Your task to perform on an android device: change the upload size in google photos Image 0: 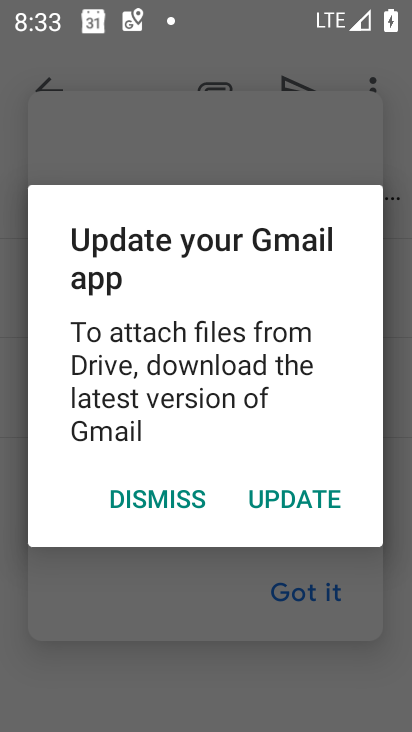
Step 0: click (322, 488)
Your task to perform on an android device: change the upload size in google photos Image 1: 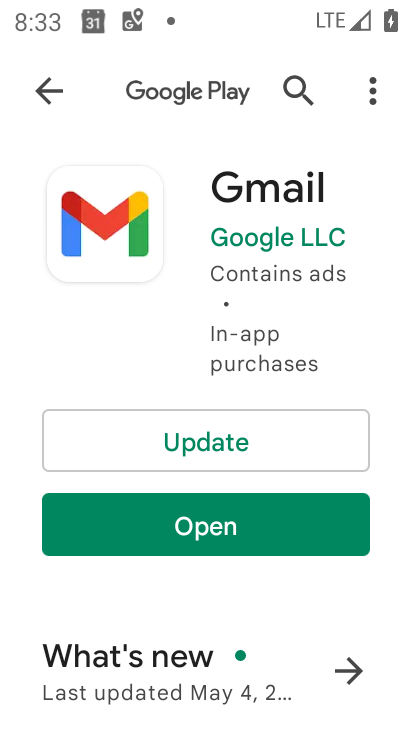
Step 1: click (292, 451)
Your task to perform on an android device: change the upload size in google photos Image 2: 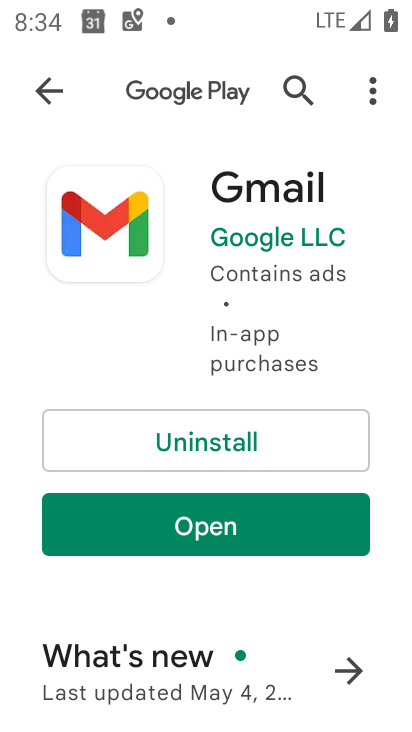
Step 2: click (229, 525)
Your task to perform on an android device: change the upload size in google photos Image 3: 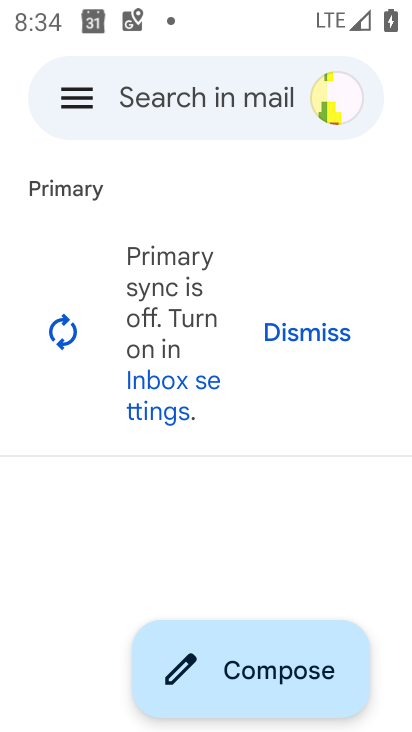
Step 3: click (74, 99)
Your task to perform on an android device: change the upload size in google photos Image 4: 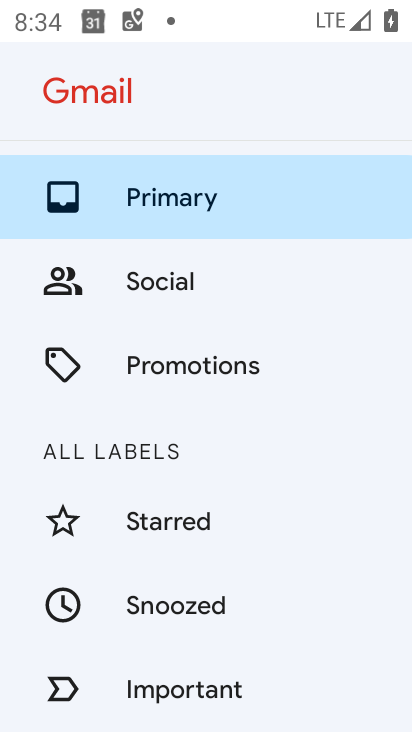
Step 4: press home button
Your task to perform on an android device: change the upload size in google photos Image 5: 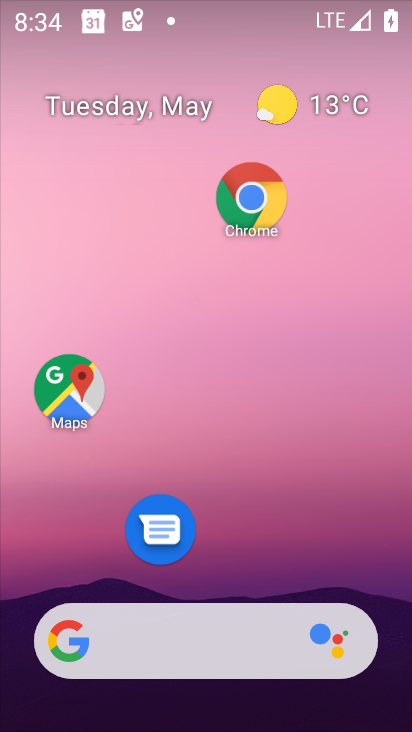
Step 5: drag from (304, 582) to (286, 28)
Your task to perform on an android device: change the upload size in google photos Image 6: 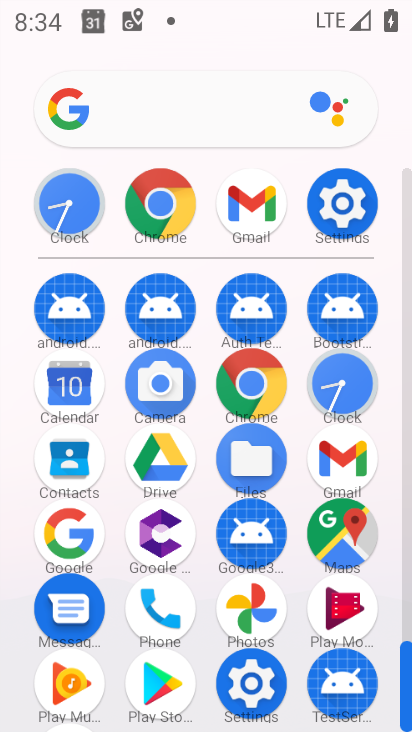
Step 6: click (363, 208)
Your task to perform on an android device: change the upload size in google photos Image 7: 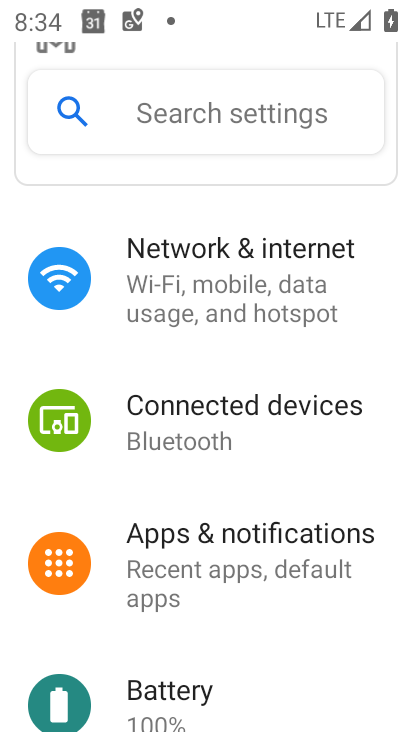
Step 7: press home button
Your task to perform on an android device: change the upload size in google photos Image 8: 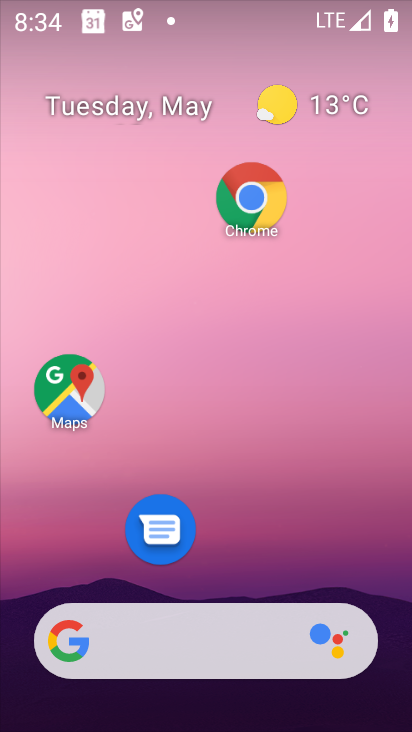
Step 8: drag from (300, 576) to (220, 13)
Your task to perform on an android device: change the upload size in google photos Image 9: 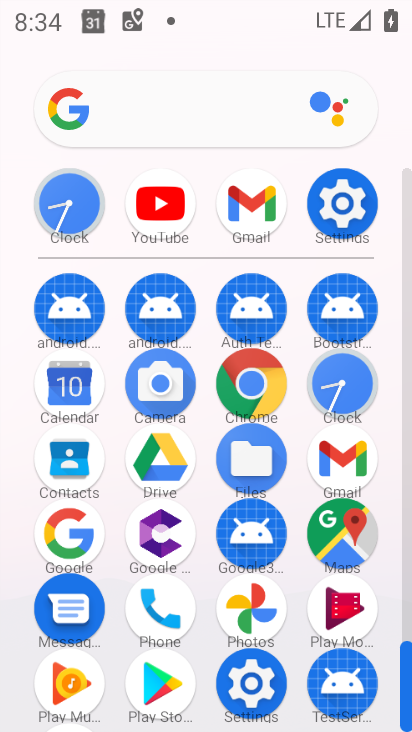
Step 9: click (229, 601)
Your task to perform on an android device: change the upload size in google photos Image 10: 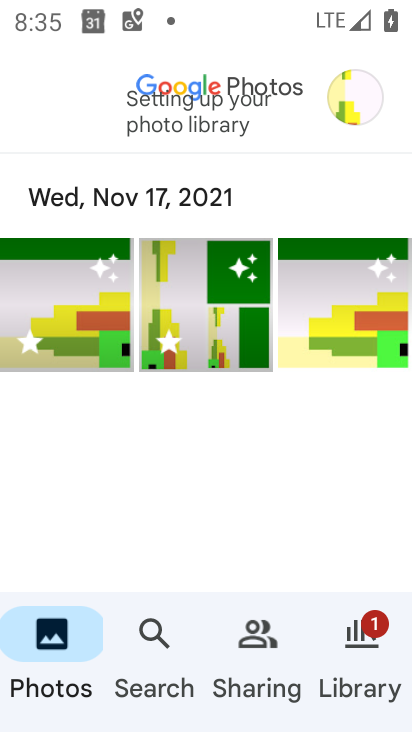
Step 10: click (354, 102)
Your task to perform on an android device: change the upload size in google photos Image 11: 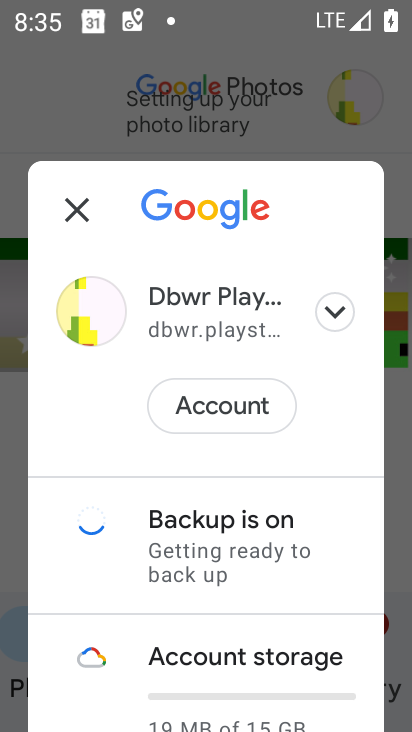
Step 11: drag from (235, 641) to (257, 316)
Your task to perform on an android device: change the upload size in google photos Image 12: 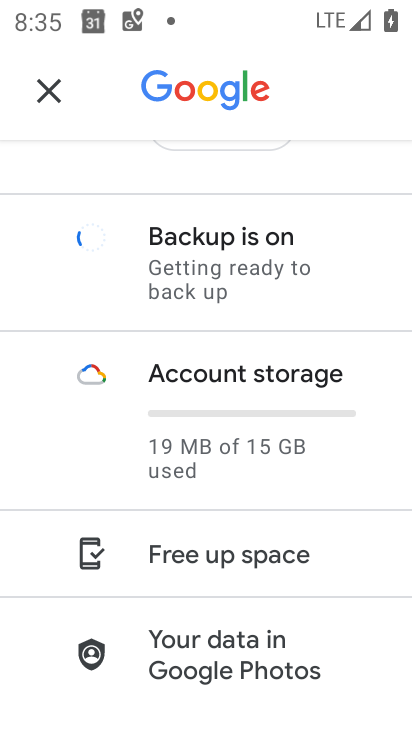
Step 12: drag from (242, 564) to (265, 284)
Your task to perform on an android device: change the upload size in google photos Image 13: 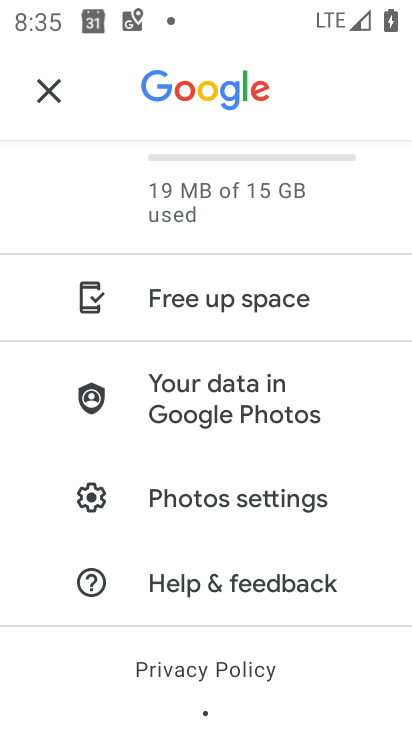
Step 13: click (242, 689)
Your task to perform on an android device: change the upload size in google photos Image 14: 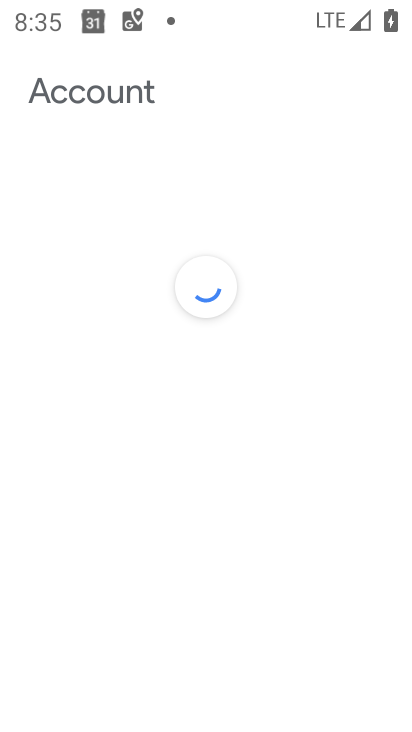
Step 14: task complete